Your task to perform on an android device: change text size in settings app Image 0: 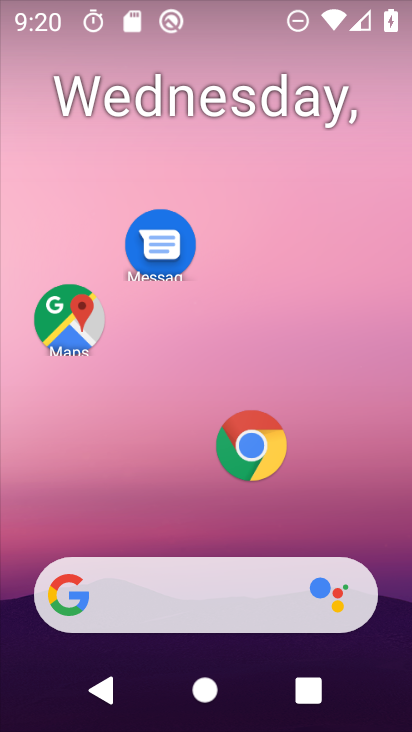
Step 0: press home button
Your task to perform on an android device: change text size in settings app Image 1: 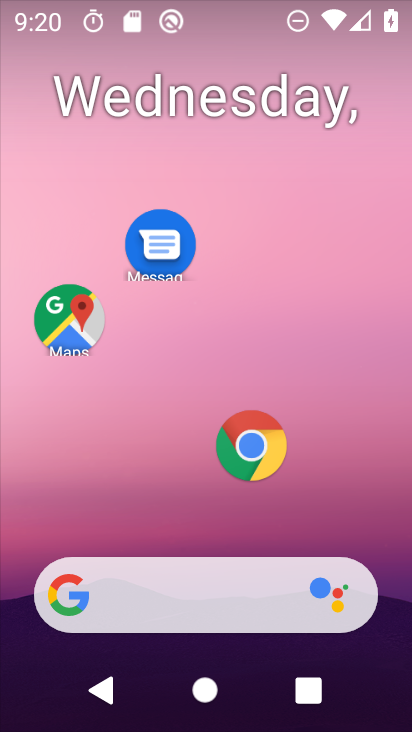
Step 1: drag from (191, 529) to (211, 89)
Your task to perform on an android device: change text size in settings app Image 2: 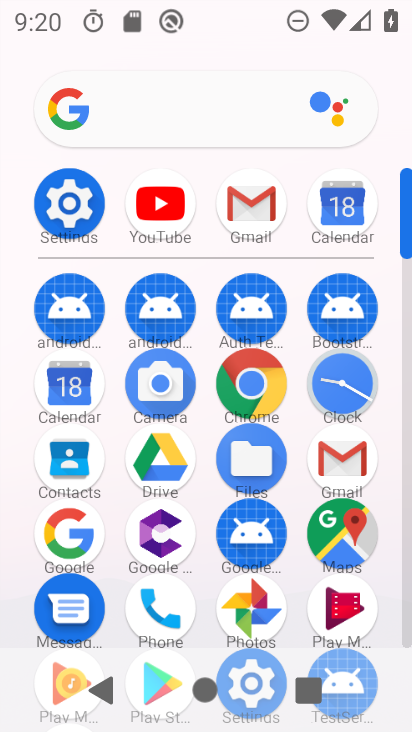
Step 2: click (67, 205)
Your task to perform on an android device: change text size in settings app Image 3: 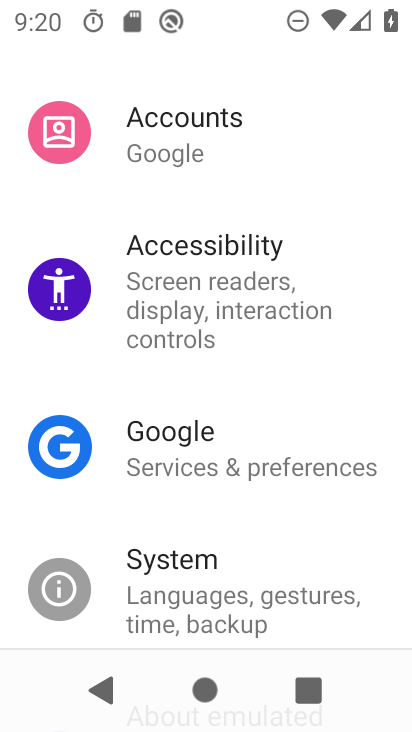
Step 3: drag from (125, 118) to (133, 624)
Your task to perform on an android device: change text size in settings app Image 4: 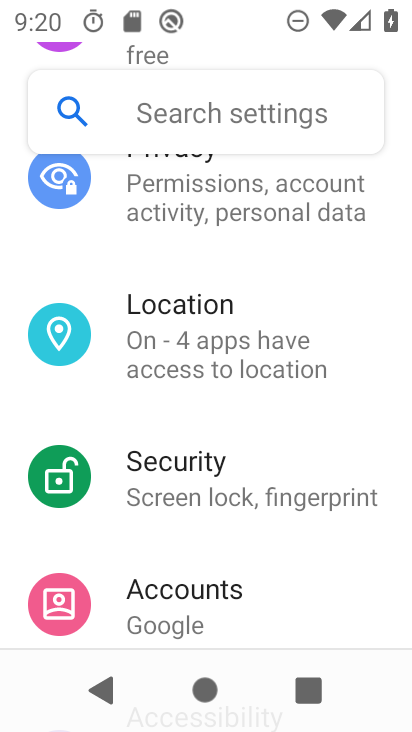
Step 4: drag from (113, 188) to (113, 721)
Your task to perform on an android device: change text size in settings app Image 5: 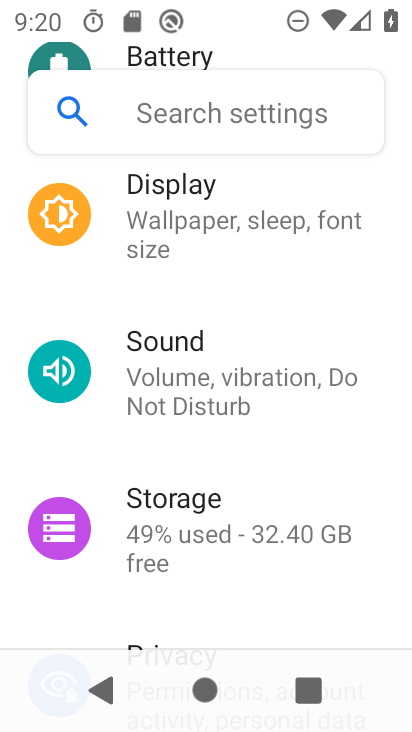
Step 5: click (134, 217)
Your task to perform on an android device: change text size in settings app Image 6: 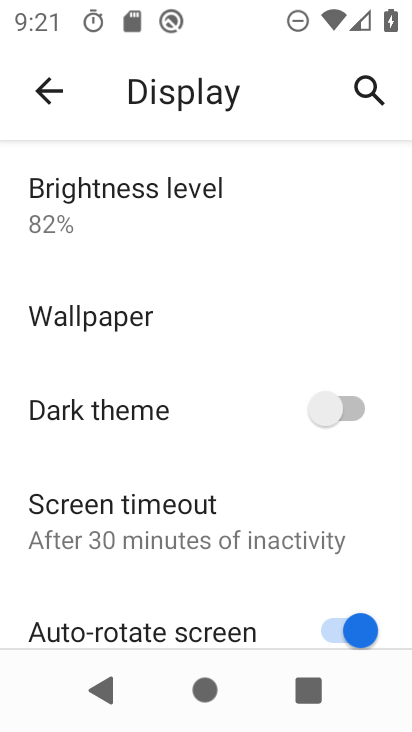
Step 6: drag from (125, 605) to (147, 169)
Your task to perform on an android device: change text size in settings app Image 7: 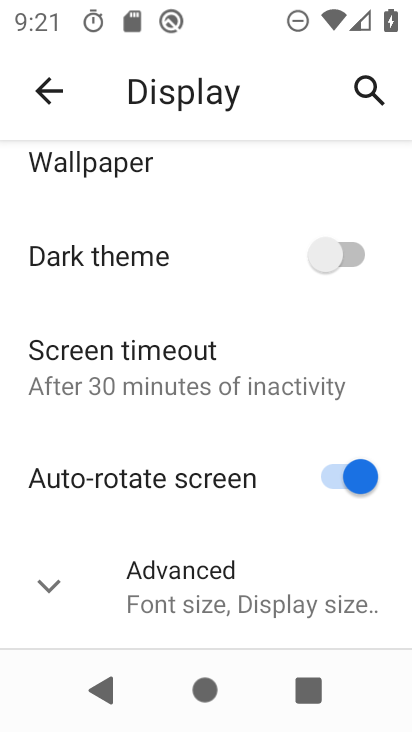
Step 7: click (65, 582)
Your task to perform on an android device: change text size in settings app Image 8: 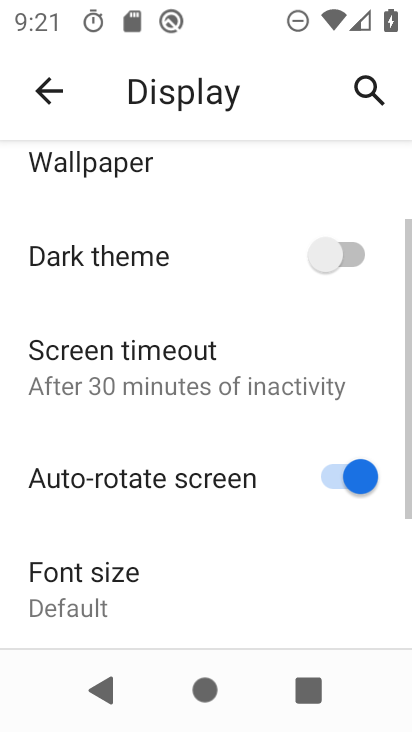
Step 8: click (126, 601)
Your task to perform on an android device: change text size in settings app Image 9: 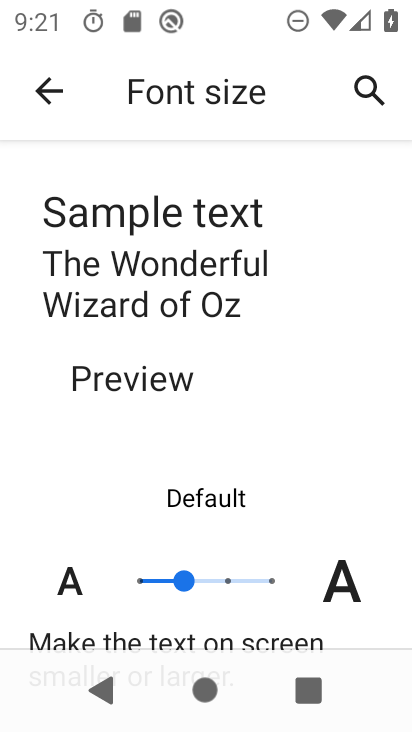
Step 9: click (143, 577)
Your task to perform on an android device: change text size in settings app Image 10: 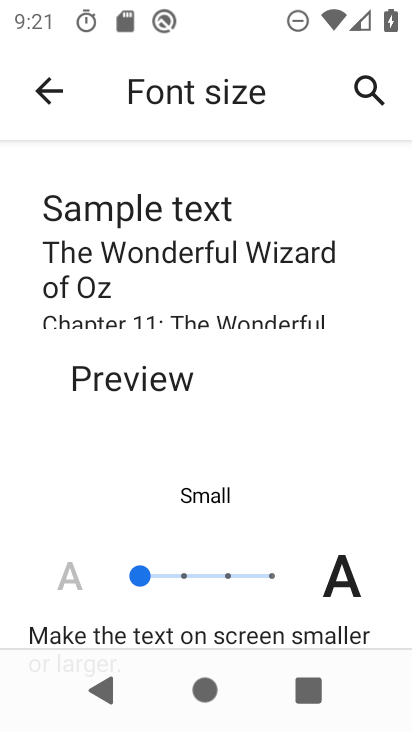
Step 10: task complete